Your task to perform on an android device: Open Youtube and go to "Your channel" Image 0: 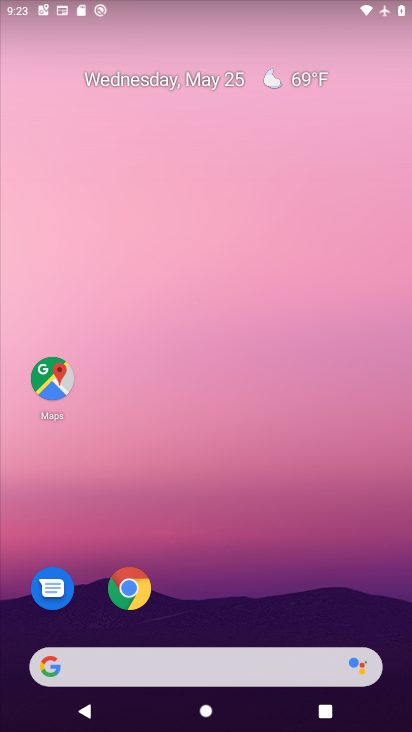
Step 0: drag from (382, 609) to (374, 140)
Your task to perform on an android device: Open Youtube and go to "Your channel" Image 1: 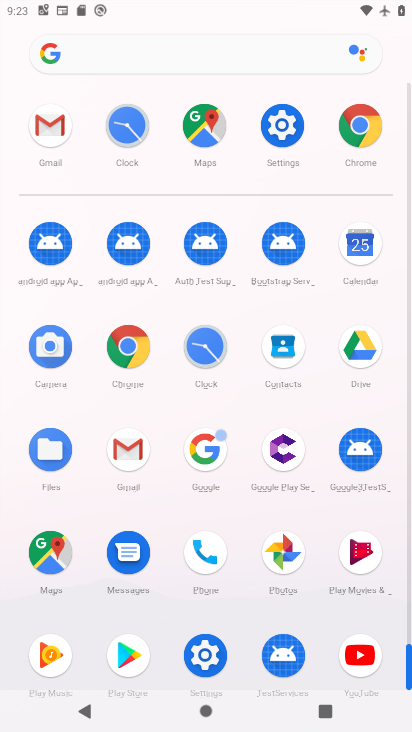
Step 1: drag from (310, 610) to (332, 355)
Your task to perform on an android device: Open Youtube and go to "Your channel" Image 2: 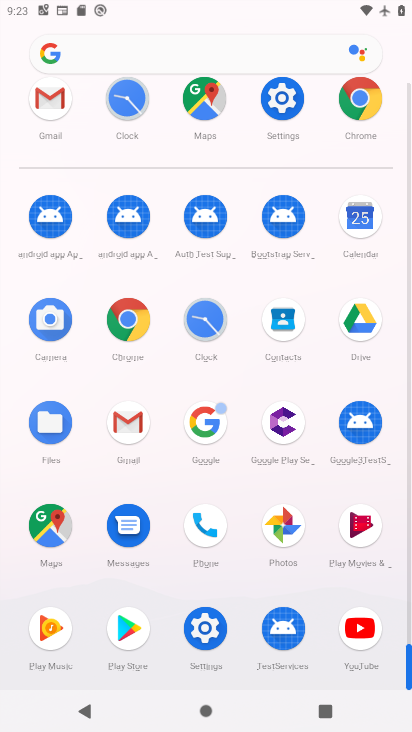
Step 2: click (362, 639)
Your task to perform on an android device: Open Youtube and go to "Your channel" Image 3: 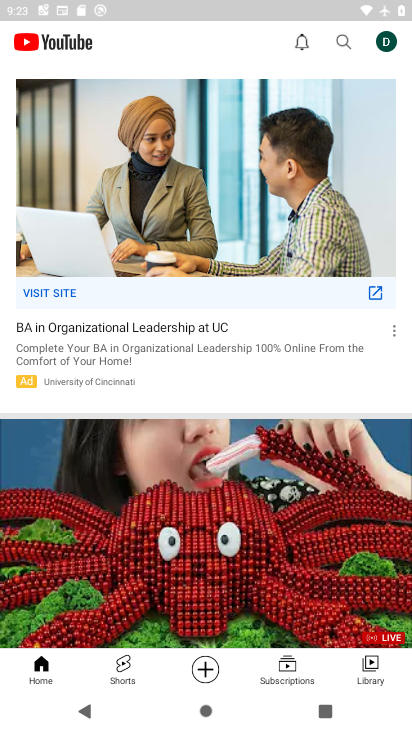
Step 3: click (384, 42)
Your task to perform on an android device: Open Youtube and go to "Your channel" Image 4: 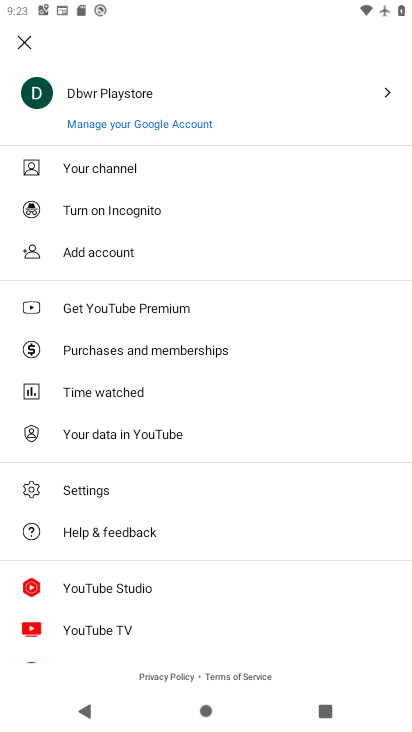
Step 4: click (119, 177)
Your task to perform on an android device: Open Youtube and go to "Your channel" Image 5: 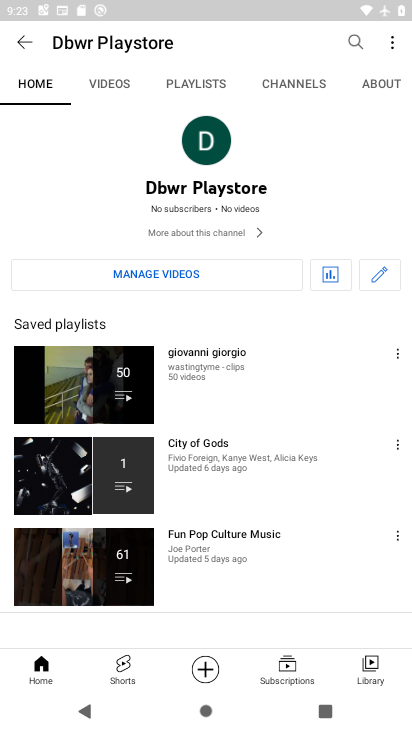
Step 5: task complete